Your task to perform on an android device: See recent photos Image 0: 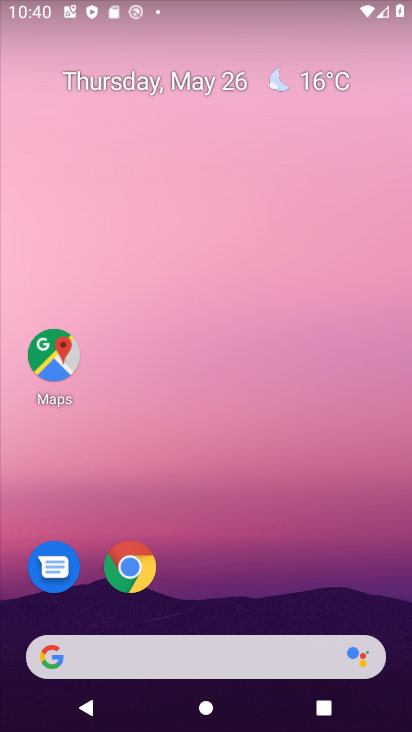
Step 0: drag from (215, 612) to (221, 58)
Your task to perform on an android device: See recent photos Image 1: 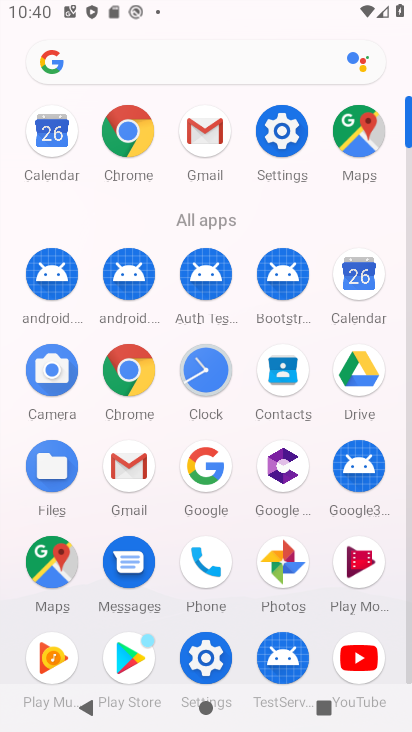
Step 1: click (278, 551)
Your task to perform on an android device: See recent photos Image 2: 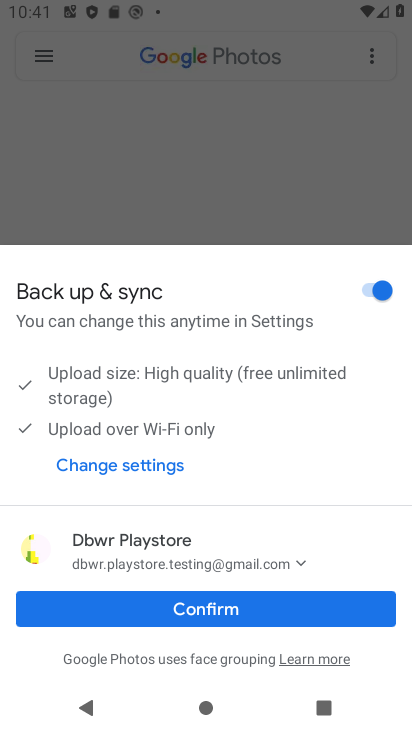
Step 2: click (216, 607)
Your task to perform on an android device: See recent photos Image 3: 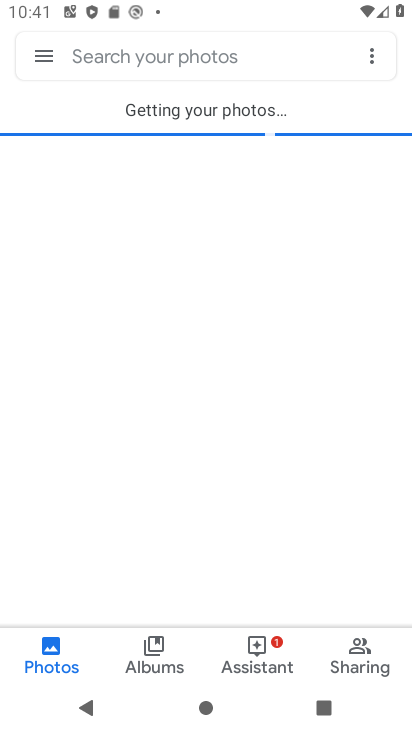
Step 3: task complete